Your task to perform on an android device: Open display settings Image 0: 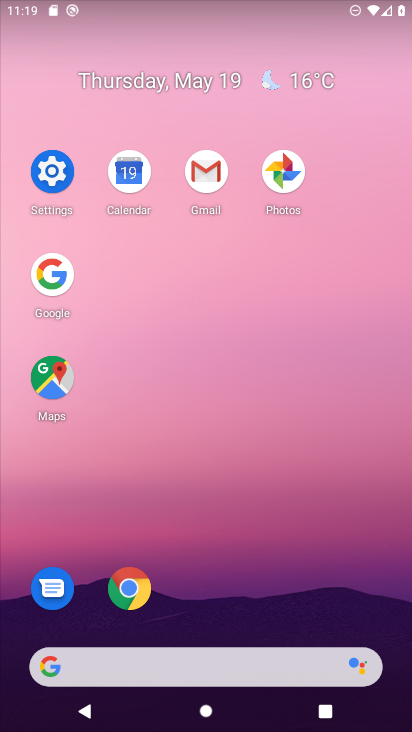
Step 0: click (51, 170)
Your task to perform on an android device: Open display settings Image 1: 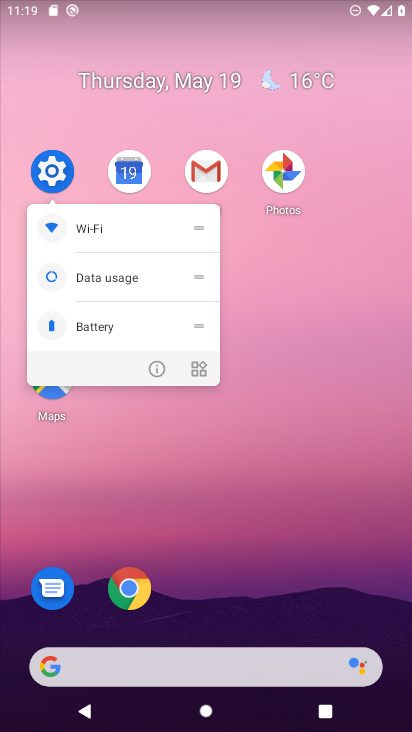
Step 1: click (51, 170)
Your task to perform on an android device: Open display settings Image 2: 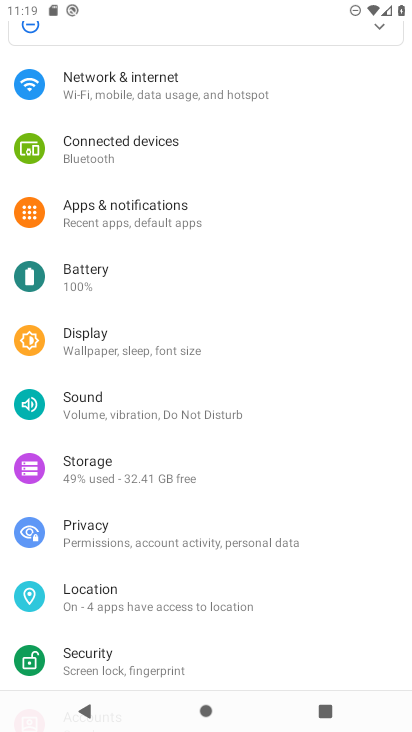
Step 2: click (127, 360)
Your task to perform on an android device: Open display settings Image 3: 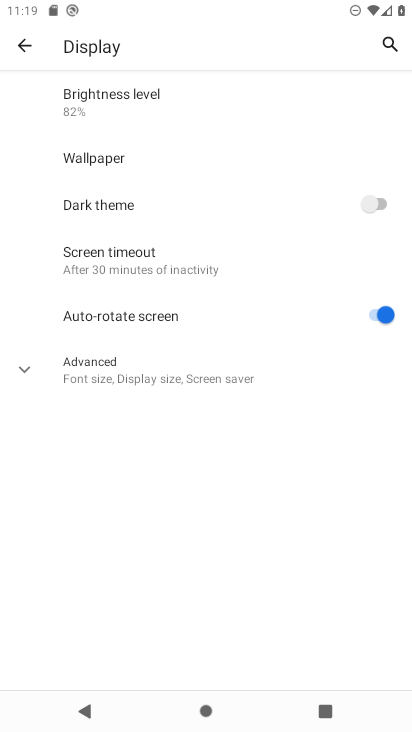
Step 3: task complete